Your task to perform on an android device: Show me popular videos on Youtube Image 0: 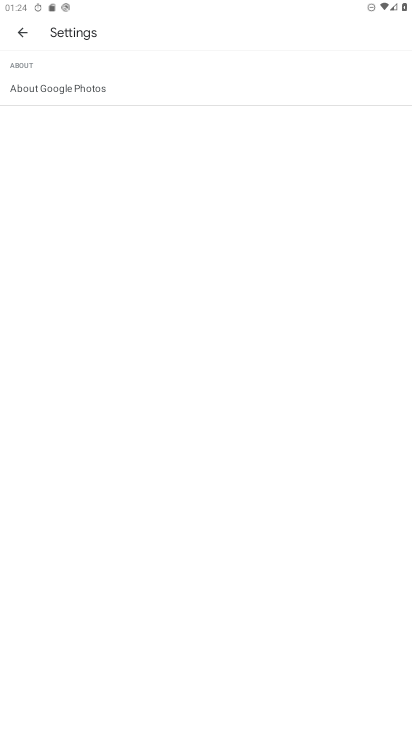
Step 0: press home button
Your task to perform on an android device: Show me popular videos on Youtube Image 1: 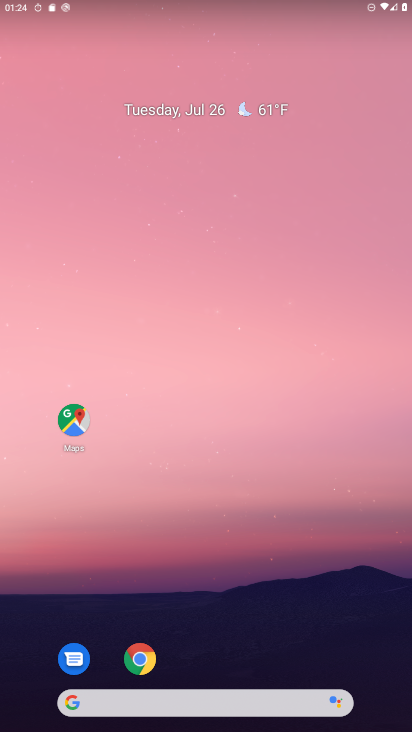
Step 1: drag from (79, 578) to (285, 55)
Your task to perform on an android device: Show me popular videos on Youtube Image 2: 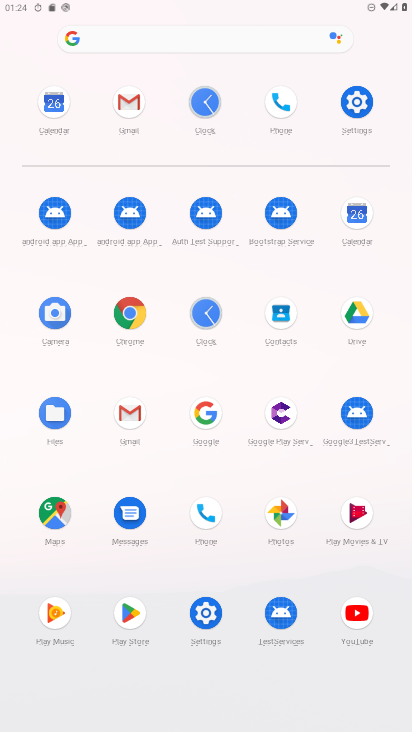
Step 2: click (371, 607)
Your task to perform on an android device: Show me popular videos on Youtube Image 3: 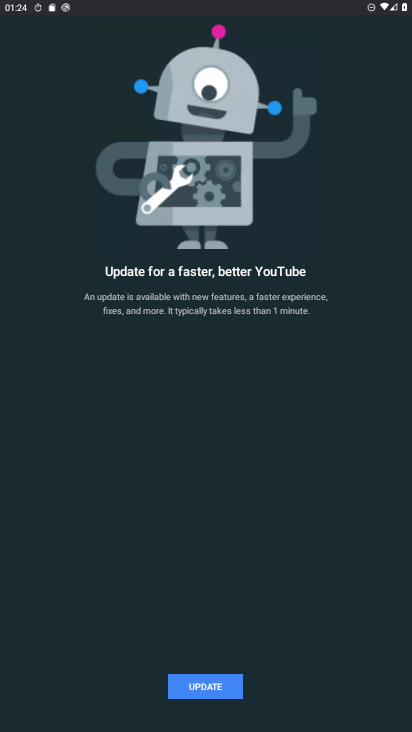
Step 3: click (207, 678)
Your task to perform on an android device: Show me popular videos on Youtube Image 4: 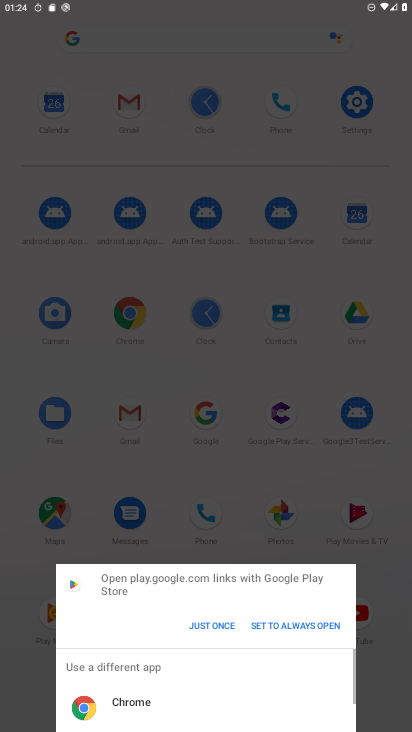
Step 4: click (201, 622)
Your task to perform on an android device: Show me popular videos on Youtube Image 5: 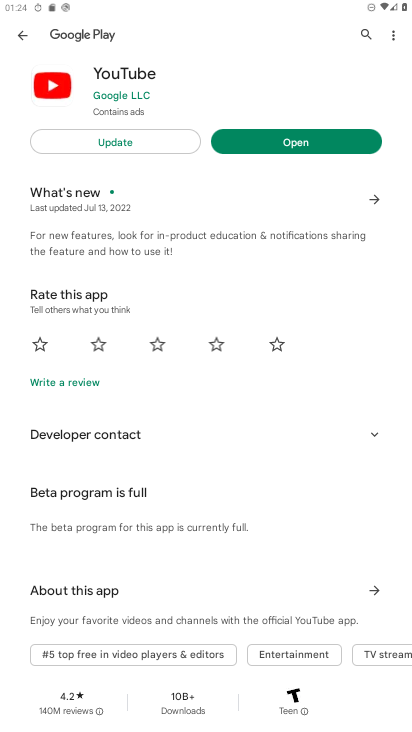
Step 5: click (252, 144)
Your task to perform on an android device: Show me popular videos on Youtube Image 6: 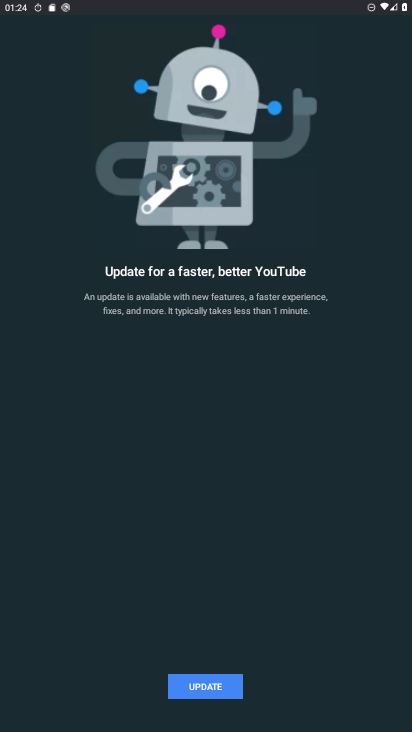
Step 6: task complete